Your task to perform on an android device: Open network settings Image 0: 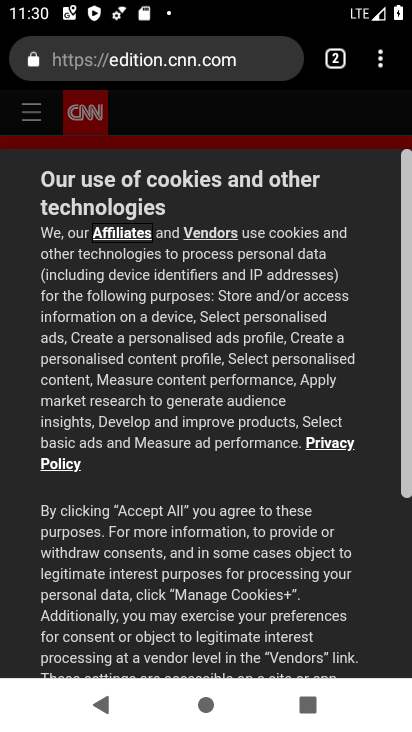
Step 0: press home button
Your task to perform on an android device: Open network settings Image 1: 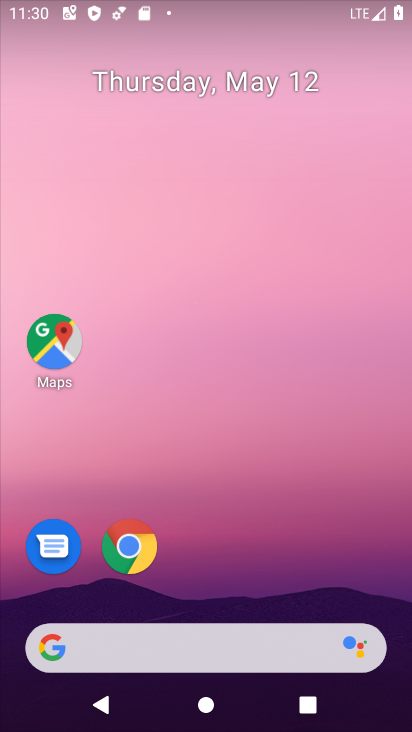
Step 1: drag from (209, 537) to (216, 238)
Your task to perform on an android device: Open network settings Image 2: 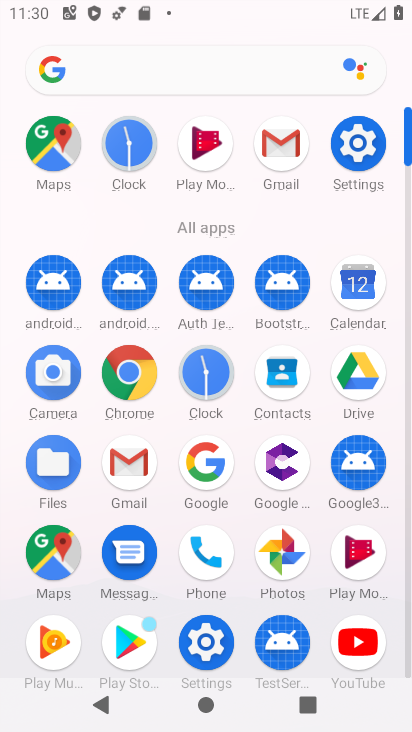
Step 2: click (351, 136)
Your task to perform on an android device: Open network settings Image 3: 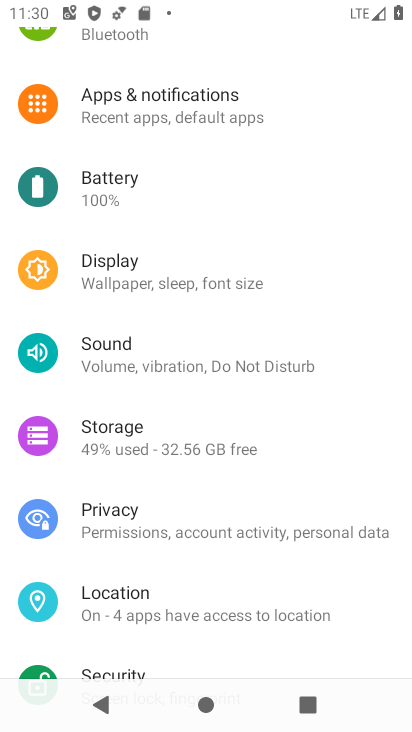
Step 3: drag from (351, 136) to (371, 452)
Your task to perform on an android device: Open network settings Image 4: 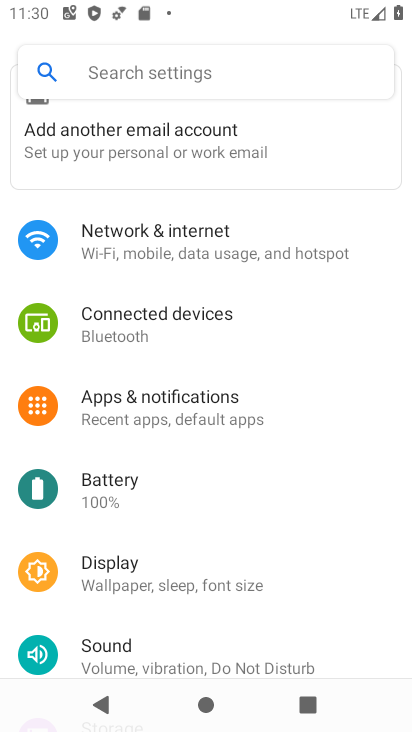
Step 4: click (206, 222)
Your task to perform on an android device: Open network settings Image 5: 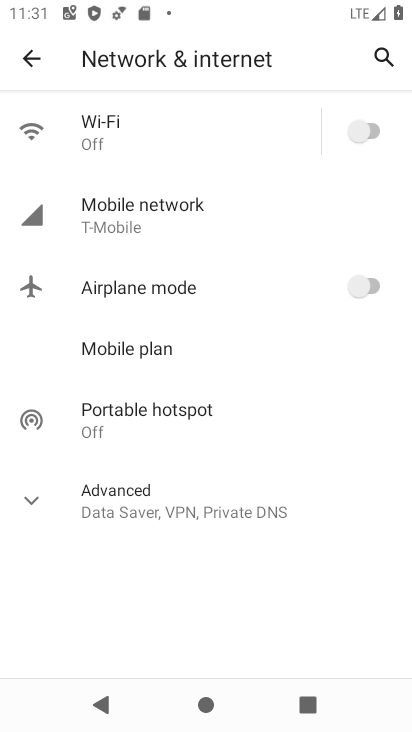
Step 5: task complete